Your task to perform on an android device: check android version Image 0: 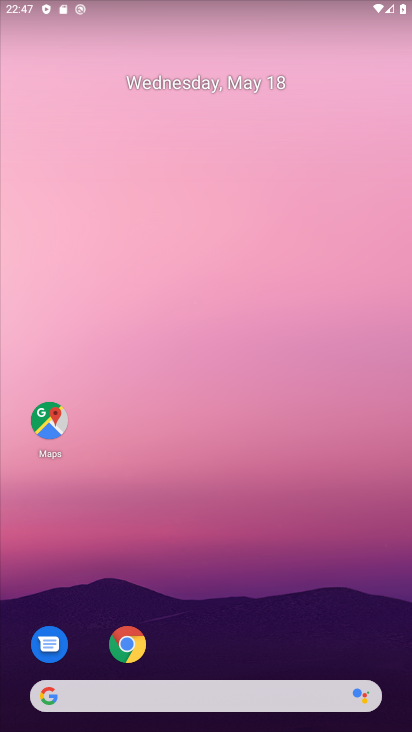
Step 0: drag from (279, 518) to (257, 53)
Your task to perform on an android device: check android version Image 1: 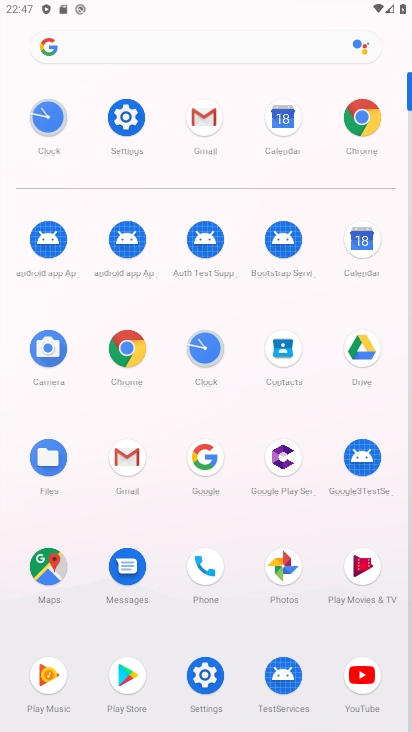
Step 1: click (137, 116)
Your task to perform on an android device: check android version Image 2: 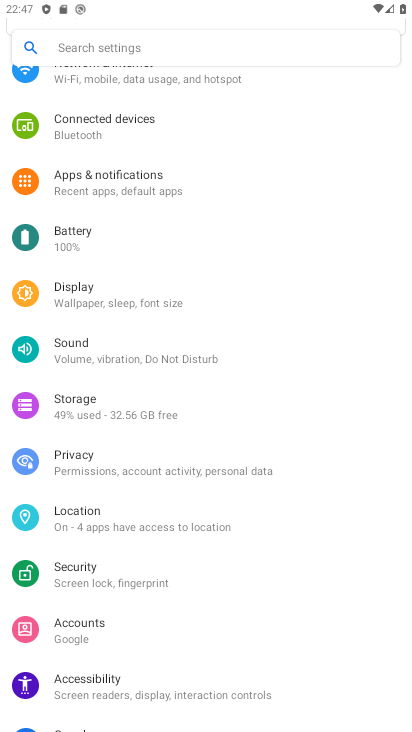
Step 2: drag from (218, 643) to (201, 69)
Your task to perform on an android device: check android version Image 3: 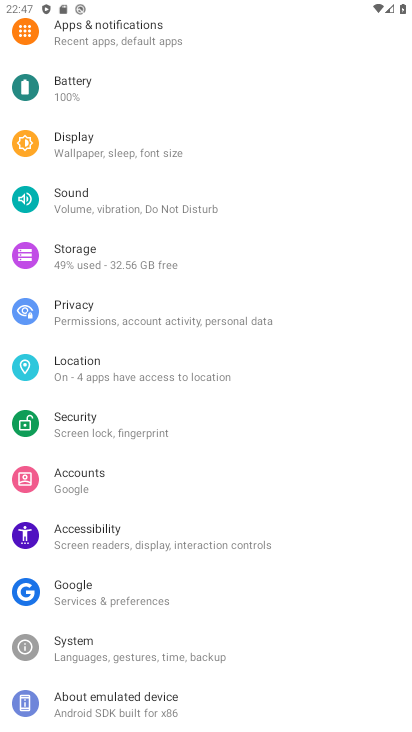
Step 3: click (175, 719)
Your task to perform on an android device: check android version Image 4: 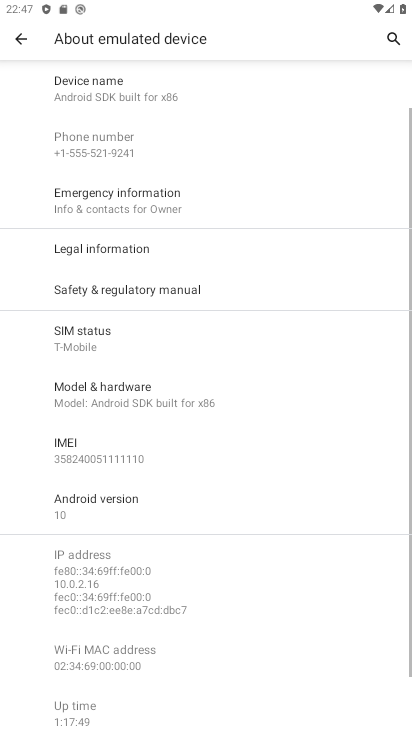
Step 4: drag from (206, 601) to (257, 207)
Your task to perform on an android device: check android version Image 5: 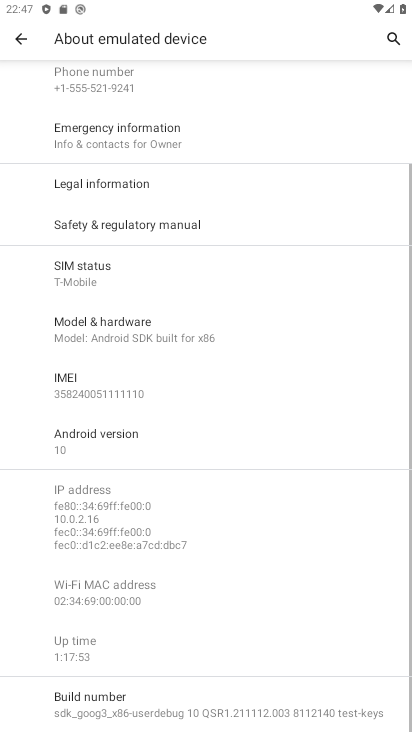
Step 5: click (103, 445)
Your task to perform on an android device: check android version Image 6: 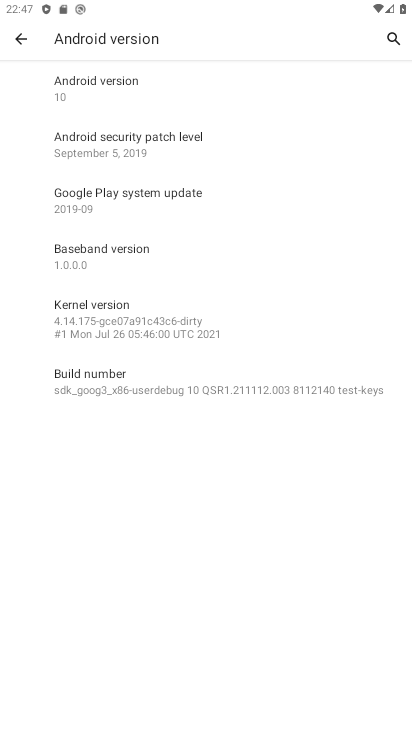
Step 6: click (225, 69)
Your task to perform on an android device: check android version Image 7: 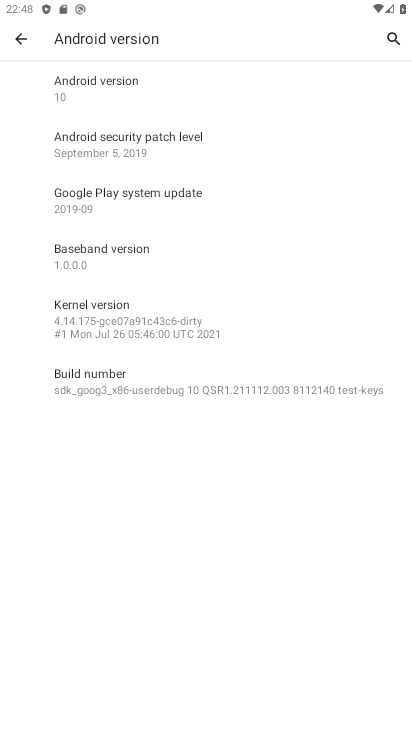
Step 7: task complete